Your task to perform on an android device: choose inbox layout in the gmail app Image 0: 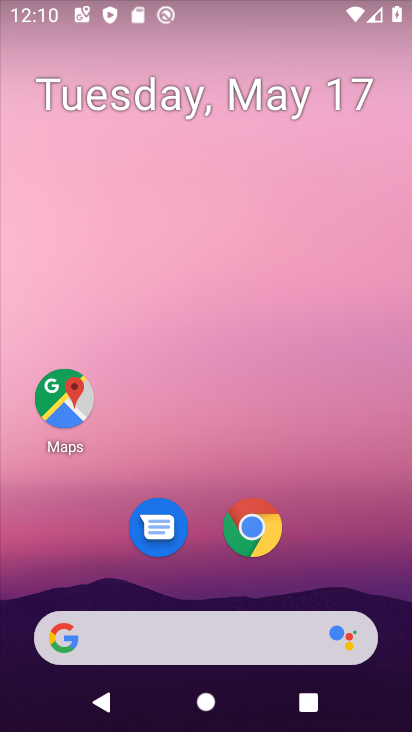
Step 0: drag from (376, 532) to (314, 155)
Your task to perform on an android device: choose inbox layout in the gmail app Image 1: 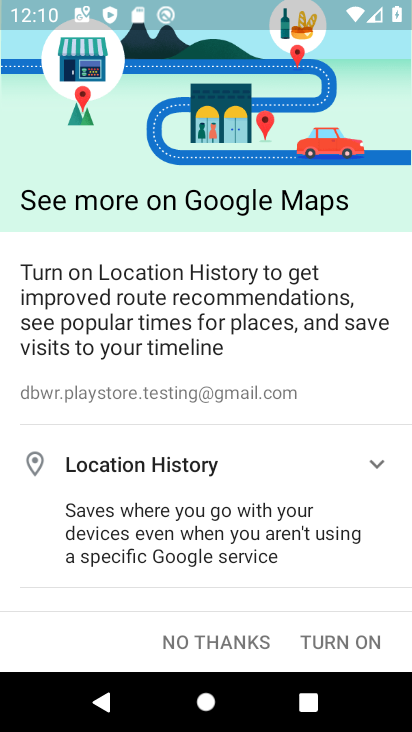
Step 1: click (201, 635)
Your task to perform on an android device: choose inbox layout in the gmail app Image 2: 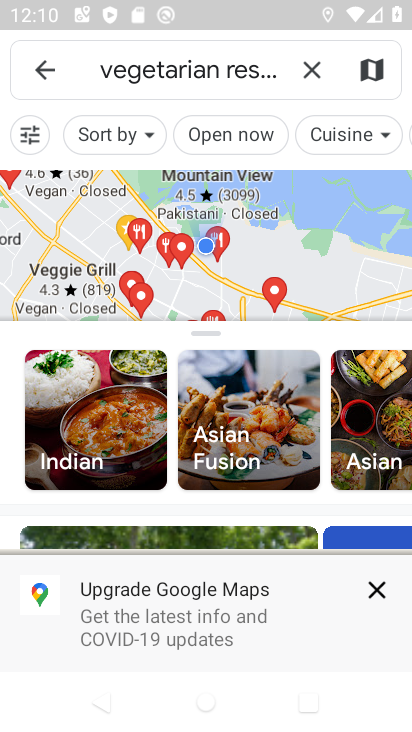
Step 2: press home button
Your task to perform on an android device: choose inbox layout in the gmail app Image 3: 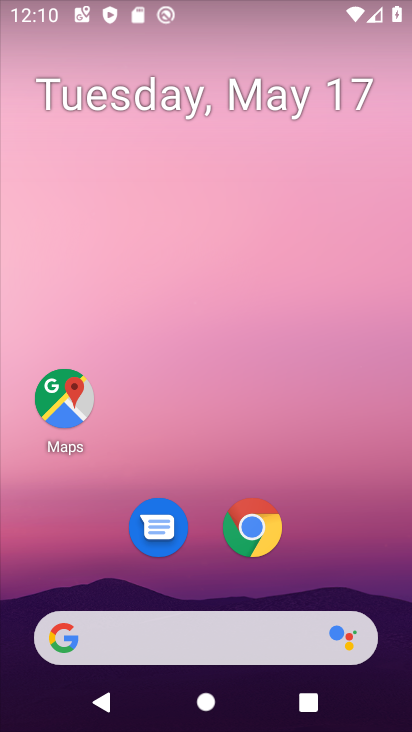
Step 3: drag from (314, 523) to (281, 133)
Your task to perform on an android device: choose inbox layout in the gmail app Image 4: 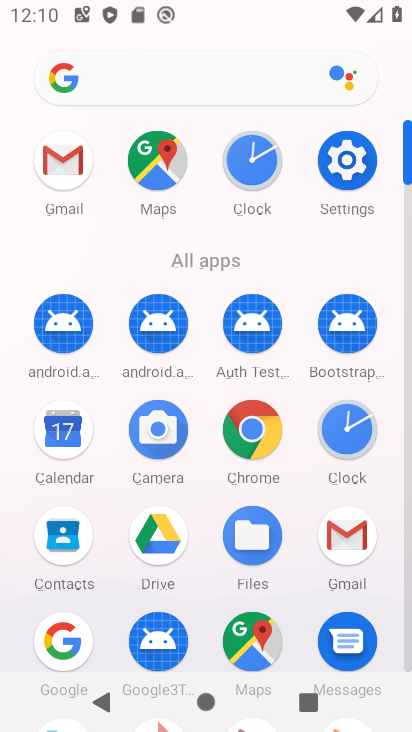
Step 4: click (35, 174)
Your task to perform on an android device: choose inbox layout in the gmail app Image 5: 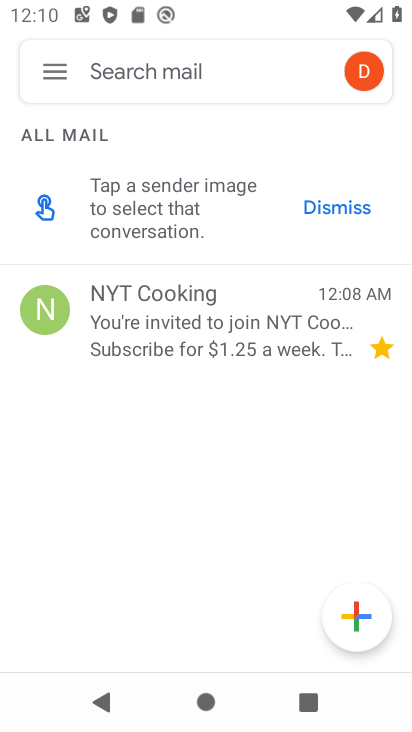
Step 5: click (62, 81)
Your task to perform on an android device: choose inbox layout in the gmail app Image 6: 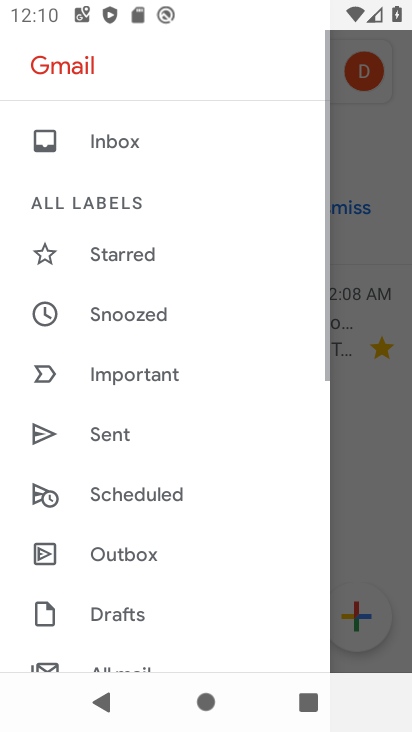
Step 6: drag from (221, 554) to (242, 279)
Your task to perform on an android device: choose inbox layout in the gmail app Image 7: 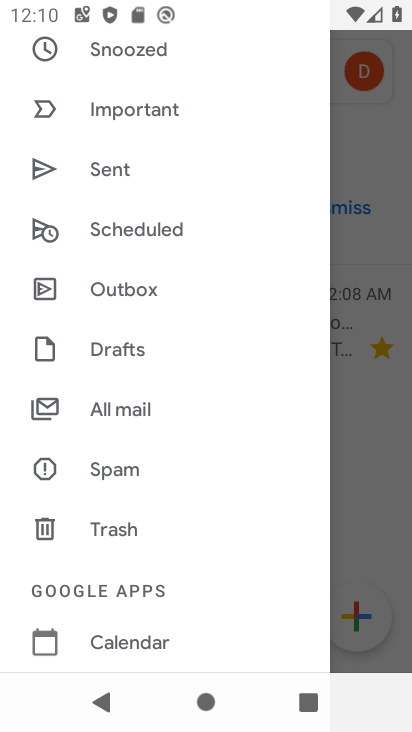
Step 7: drag from (246, 578) to (230, 211)
Your task to perform on an android device: choose inbox layout in the gmail app Image 8: 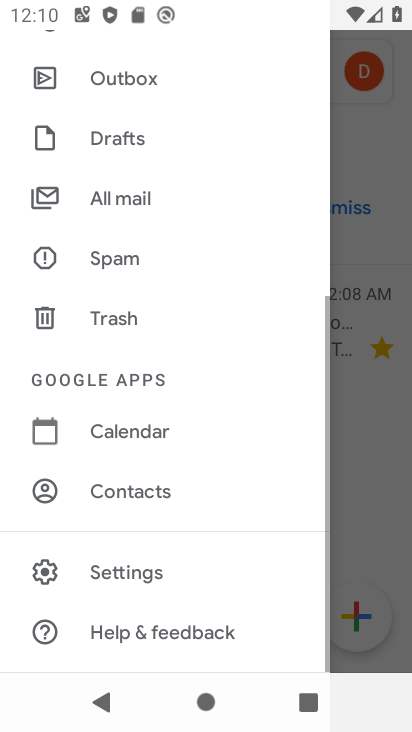
Step 8: click (155, 557)
Your task to perform on an android device: choose inbox layout in the gmail app Image 9: 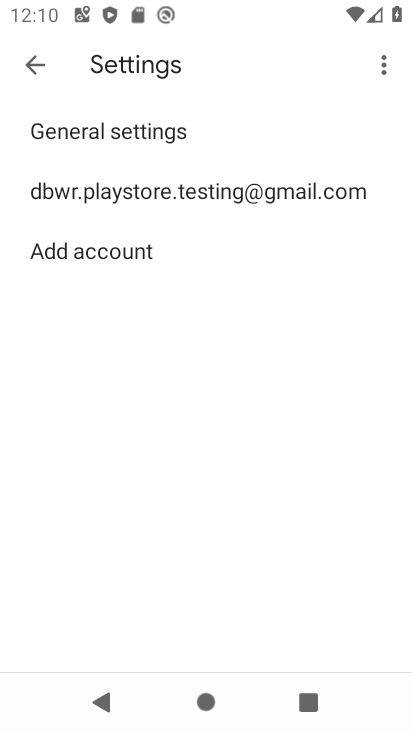
Step 9: click (231, 183)
Your task to perform on an android device: choose inbox layout in the gmail app Image 10: 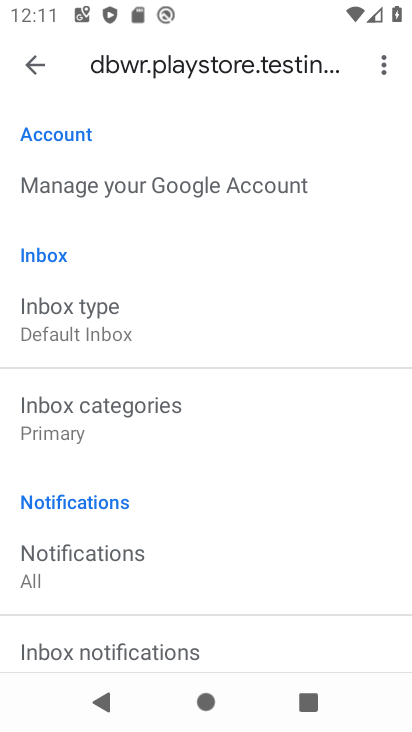
Step 10: click (91, 325)
Your task to perform on an android device: choose inbox layout in the gmail app Image 11: 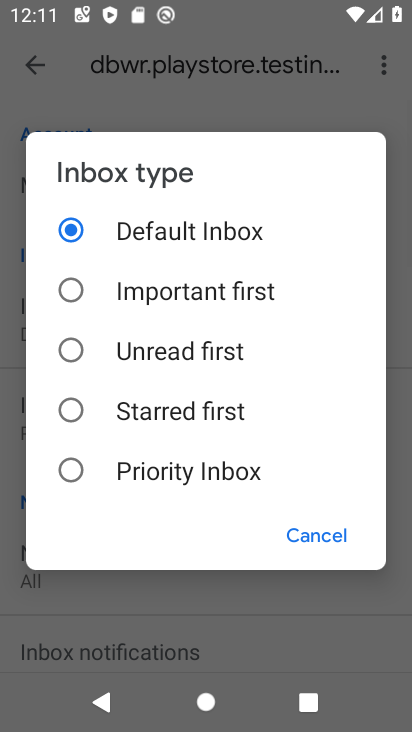
Step 11: click (67, 488)
Your task to perform on an android device: choose inbox layout in the gmail app Image 12: 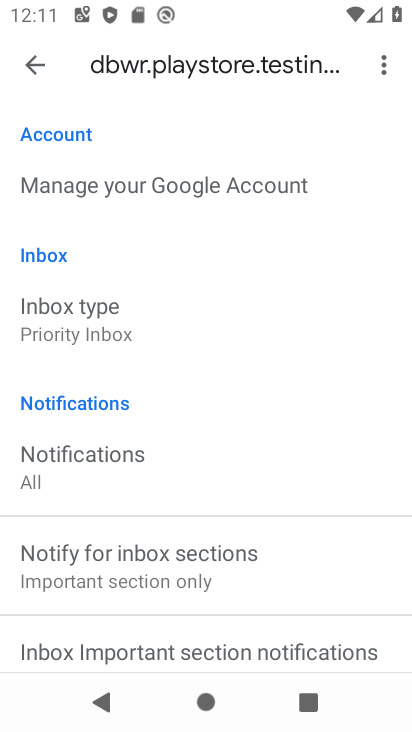
Step 12: task complete